Your task to perform on an android device: turn notification dots on Image 0: 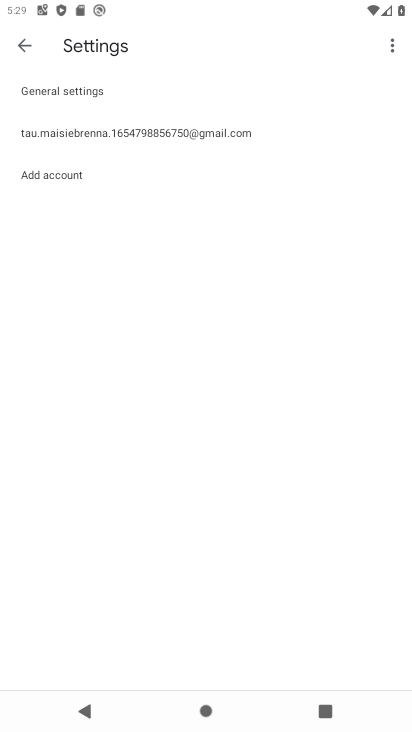
Step 0: press home button
Your task to perform on an android device: turn notification dots on Image 1: 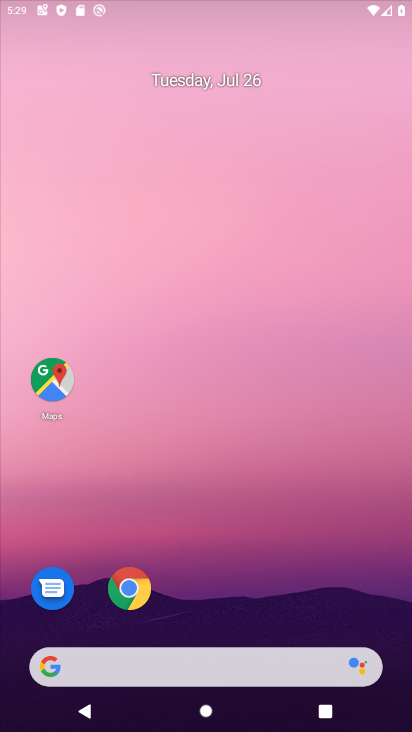
Step 1: drag from (229, 492) to (235, 357)
Your task to perform on an android device: turn notification dots on Image 2: 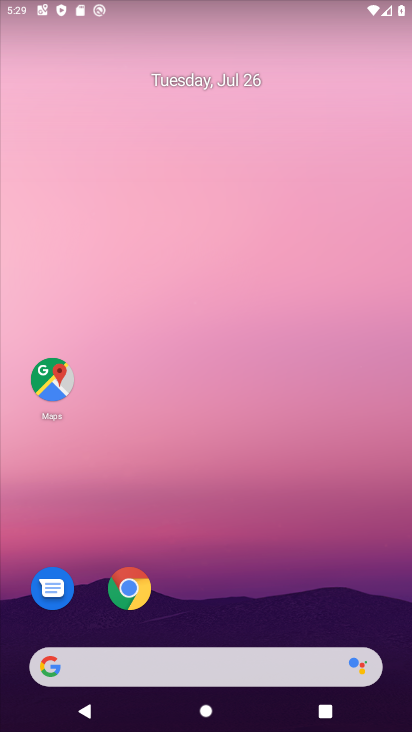
Step 2: drag from (204, 664) to (280, 132)
Your task to perform on an android device: turn notification dots on Image 3: 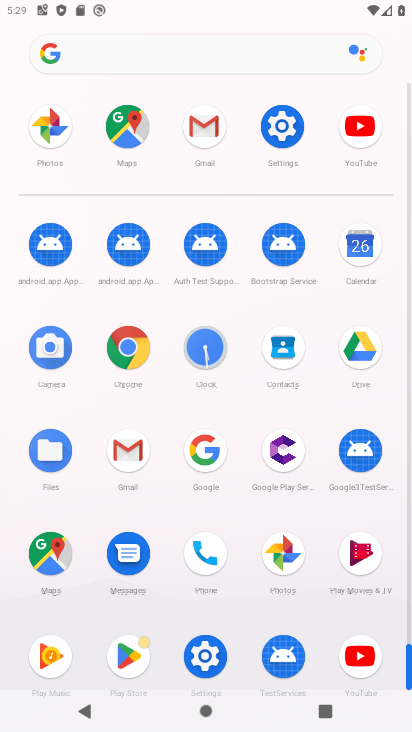
Step 3: click (289, 139)
Your task to perform on an android device: turn notification dots on Image 4: 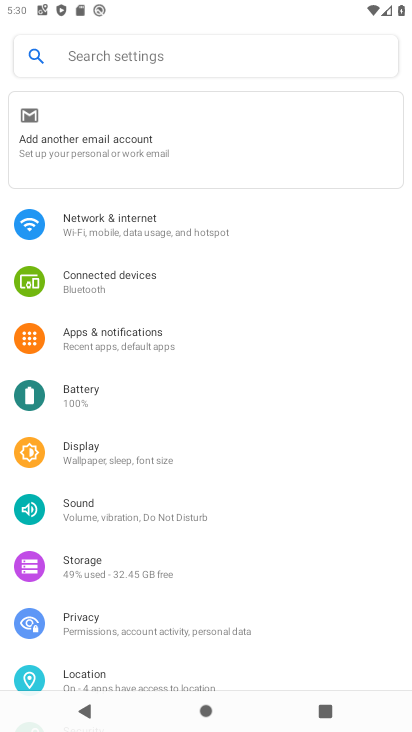
Step 4: click (177, 350)
Your task to perform on an android device: turn notification dots on Image 5: 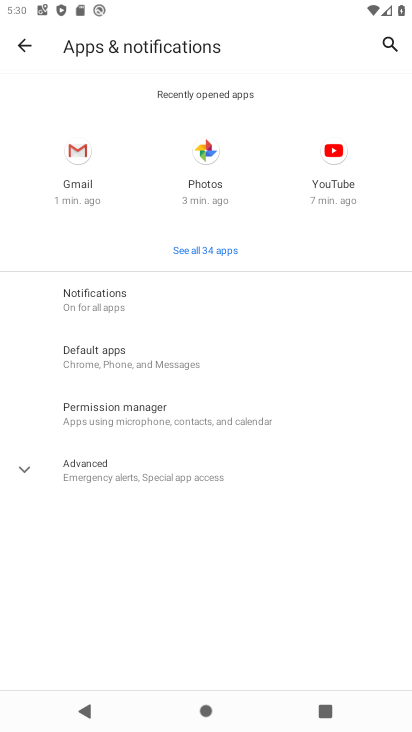
Step 5: click (156, 291)
Your task to perform on an android device: turn notification dots on Image 6: 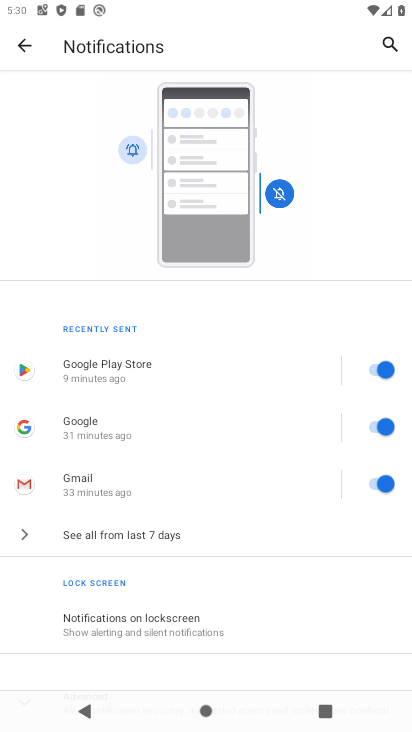
Step 6: drag from (191, 627) to (296, 60)
Your task to perform on an android device: turn notification dots on Image 7: 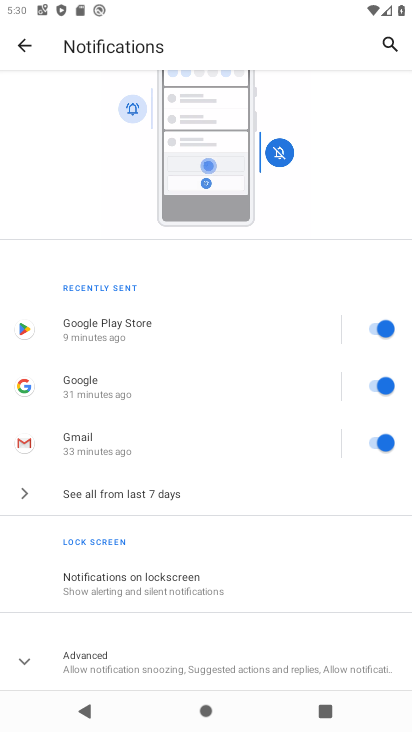
Step 7: click (146, 679)
Your task to perform on an android device: turn notification dots on Image 8: 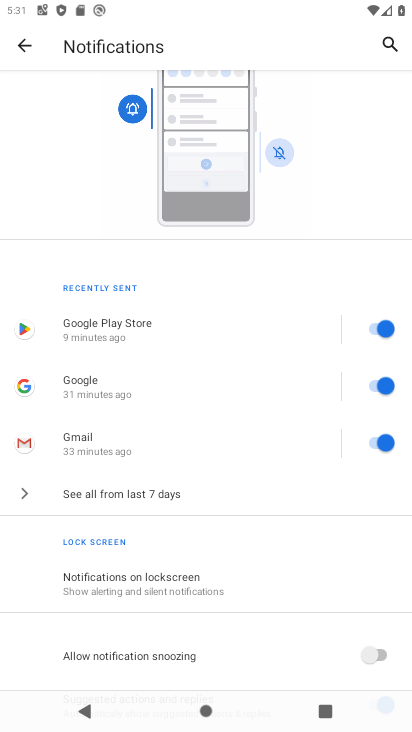
Step 8: task complete